Your task to perform on an android device: Add "logitech g pro" to the cart on ebay.com, then select checkout. Image 0: 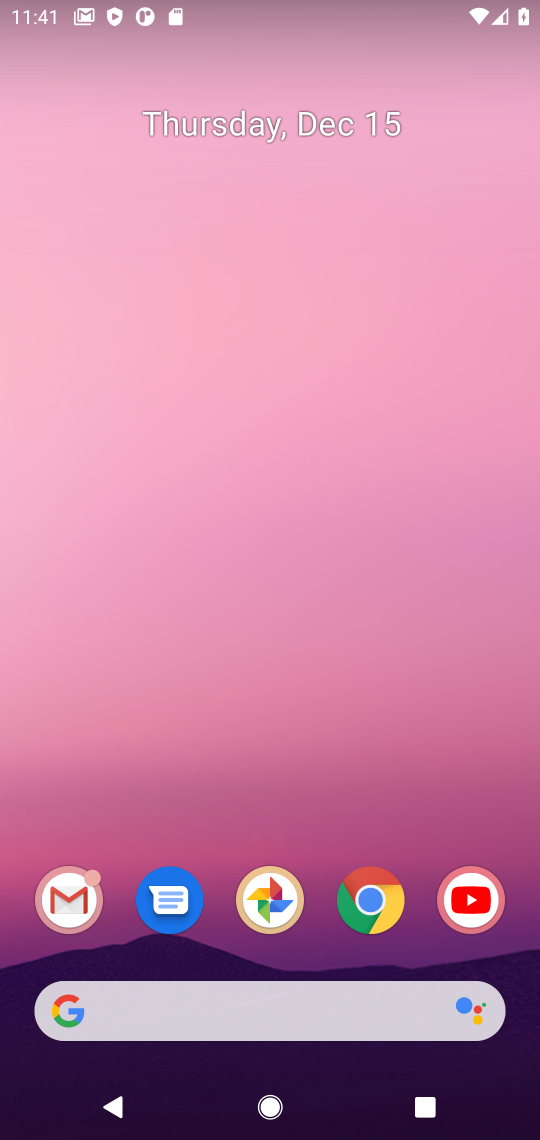
Step 0: click (373, 899)
Your task to perform on an android device: Add "logitech g pro" to the cart on ebay.com, then select checkout. Image 1: 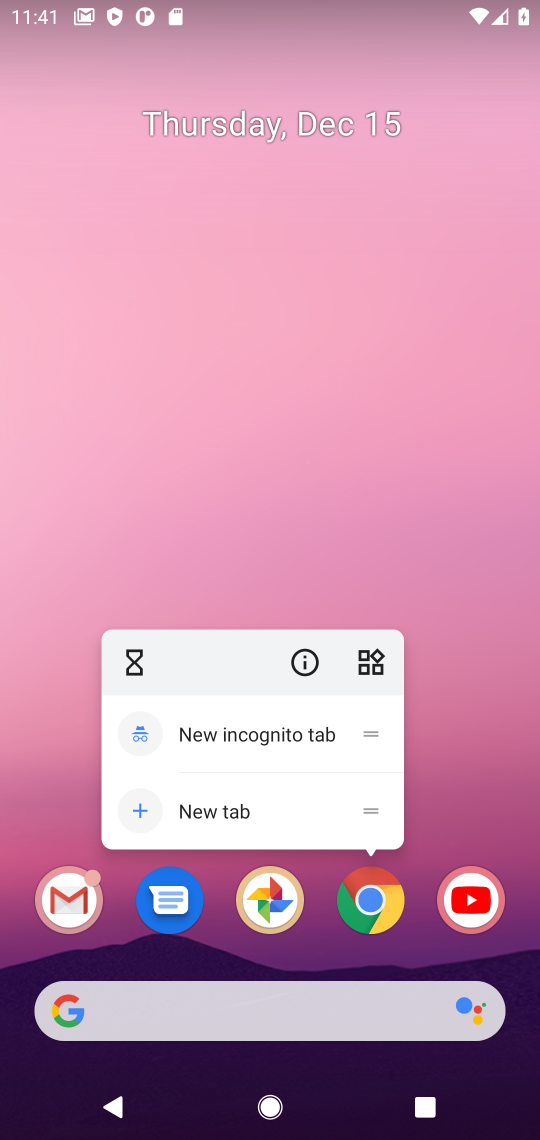
Step 1: click (373, 899)
Your task to perform on an android device: Add "logitech g pro" to the cart on ebay.com, then select checkout. Image 2: 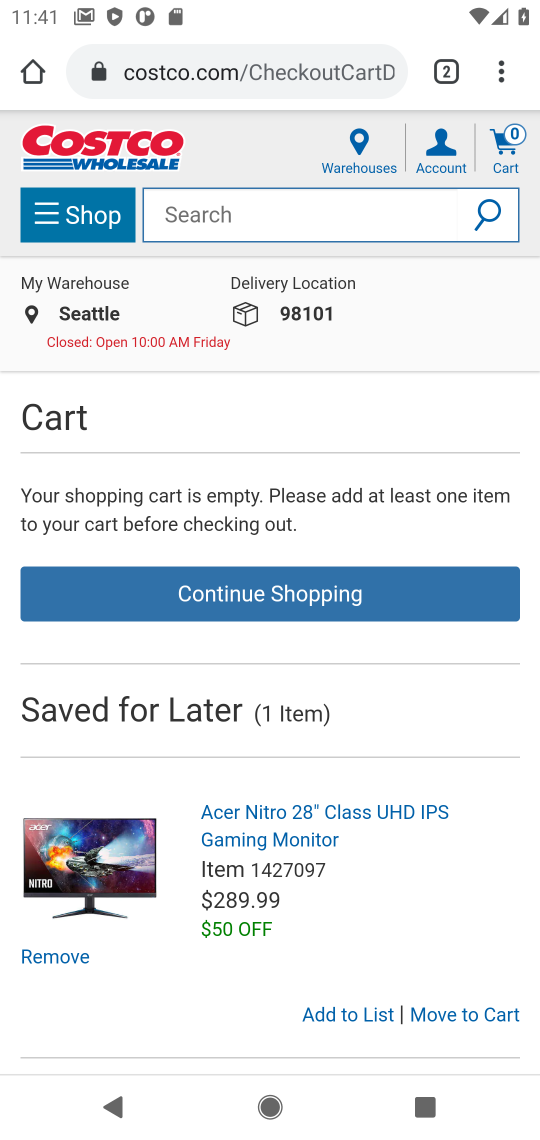
Step 2: click (302, 76)
Your task to perform on an android device: Add "logitech g pro" to the cart on ebay.com, then select checkout. Image 3: 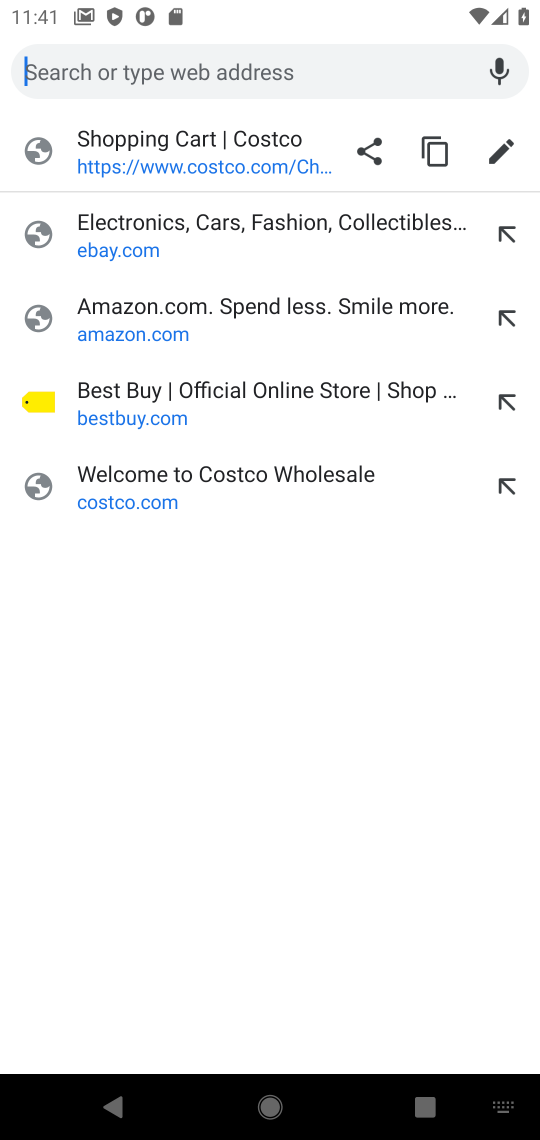
Step 3: click (208, 220)
Your task to perform on an android device: Add "logitech g pro" to the cart on ebay.com, then select checkout. Image 4: 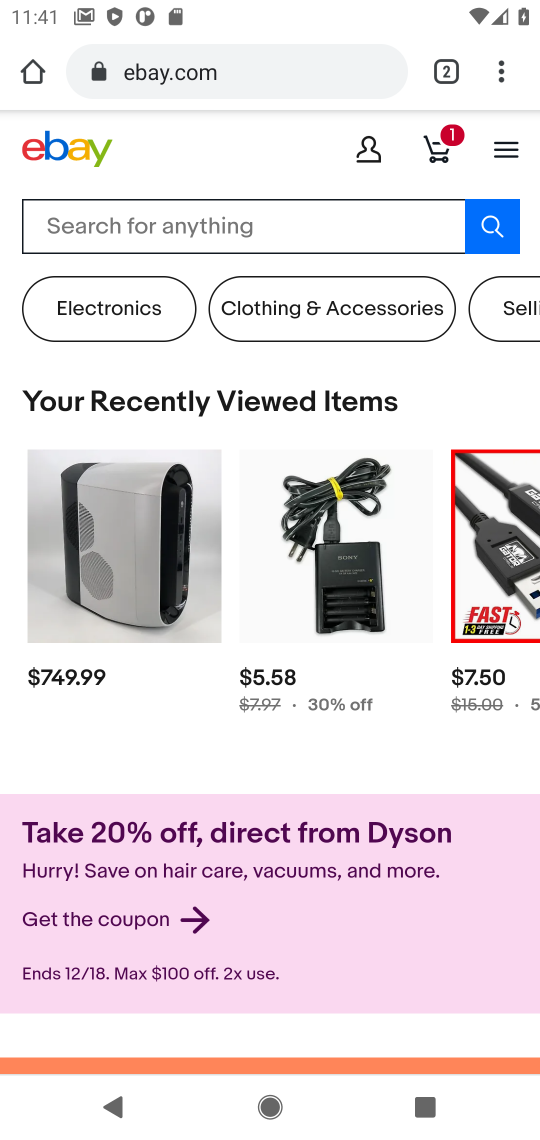
Step 4: click (338, 221)
Your task to perform on an android device: Add "logitech g pro" to the cart on ebay.com, then select checkout. Image 5: 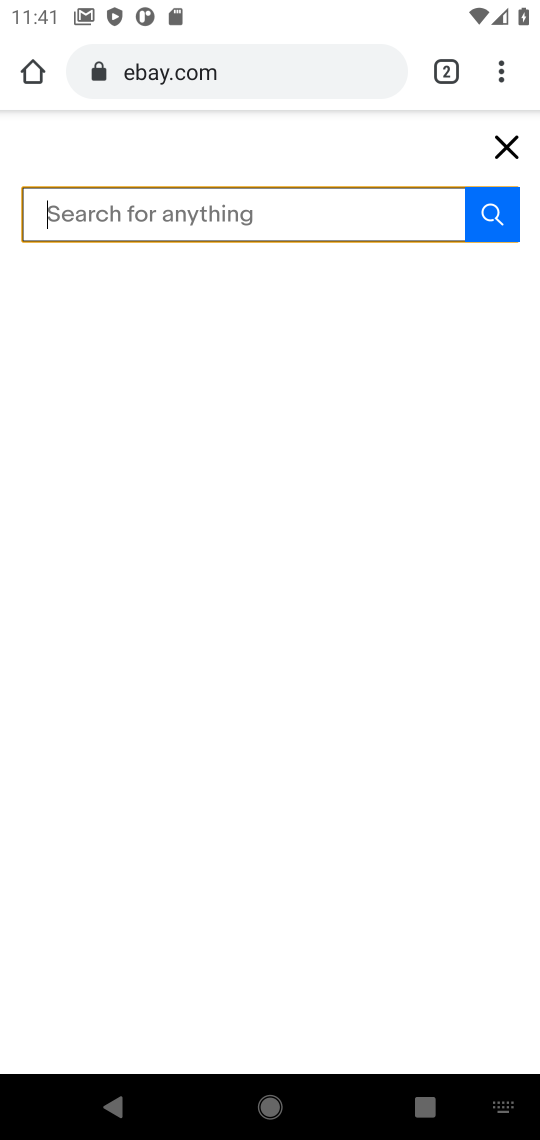
Step 5: type "logitech g pro"
Your task to perform on an android device: Add "logitech g pro" to the cart on ebay.com, then select checkout. Image 6: 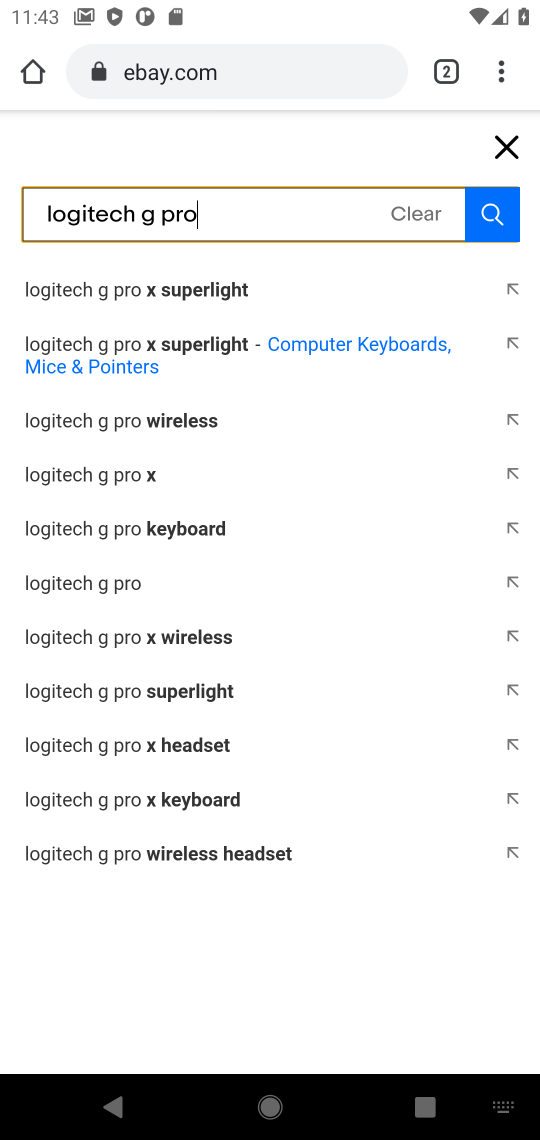
Step 6: click (117, 590)
Your task to perform on an android device: Add "logitech g pro" to the cart on ebay.com, then select checkout. Image 7: 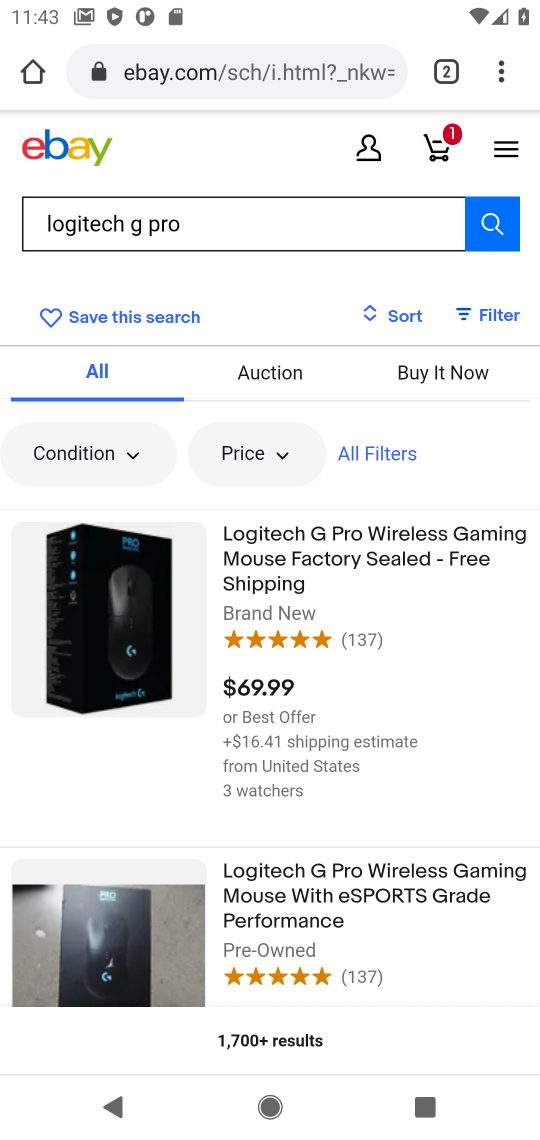
Step 7: click (124, 587)
Your task to perform on an android device: Add "logitech g pro" to the cart on ebay.com, then select checkout. Image 8: 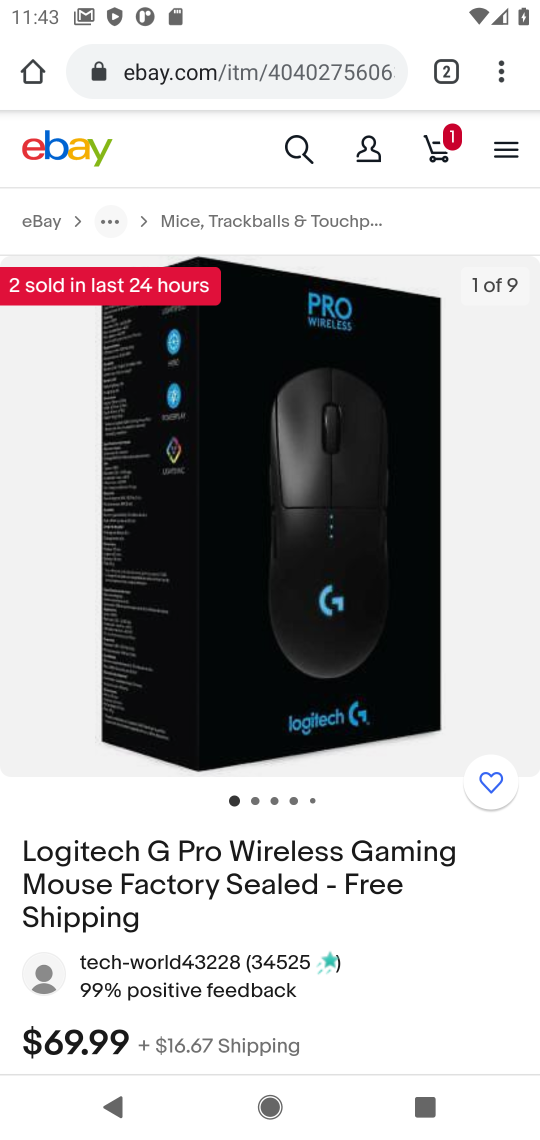
Step 8: drag from (341, 888) to (397, 245)
Your task to perform on an android device: Add "logitech g pro" to the cart on ebay.com, then select checkout. Image 9: 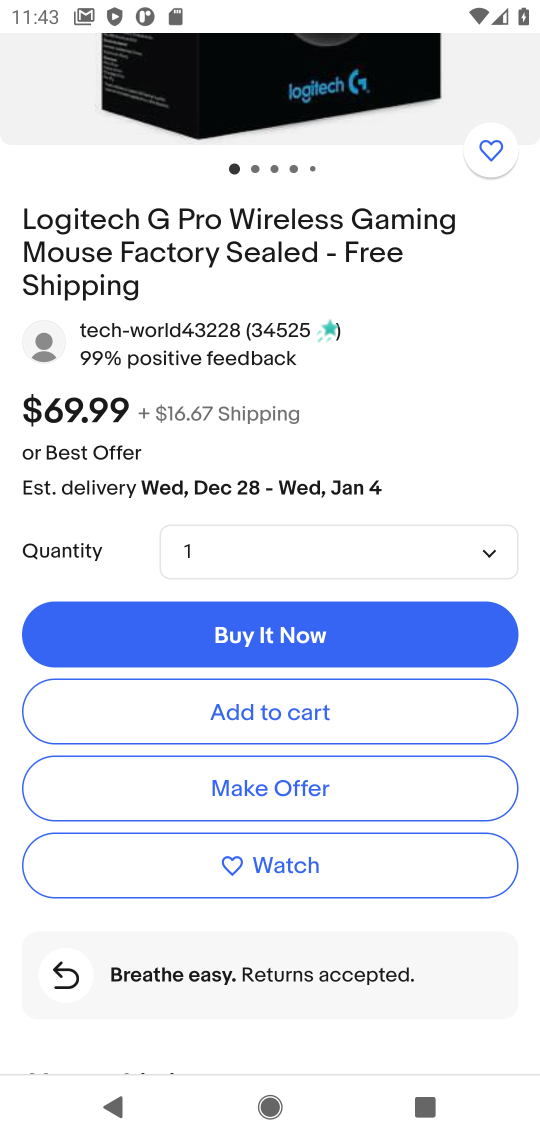
Step 9: click (353, 712)
Your task to perform on an android device: Add "logitech g pro" to the cart on ebay.com, then select checkout. Image 10: 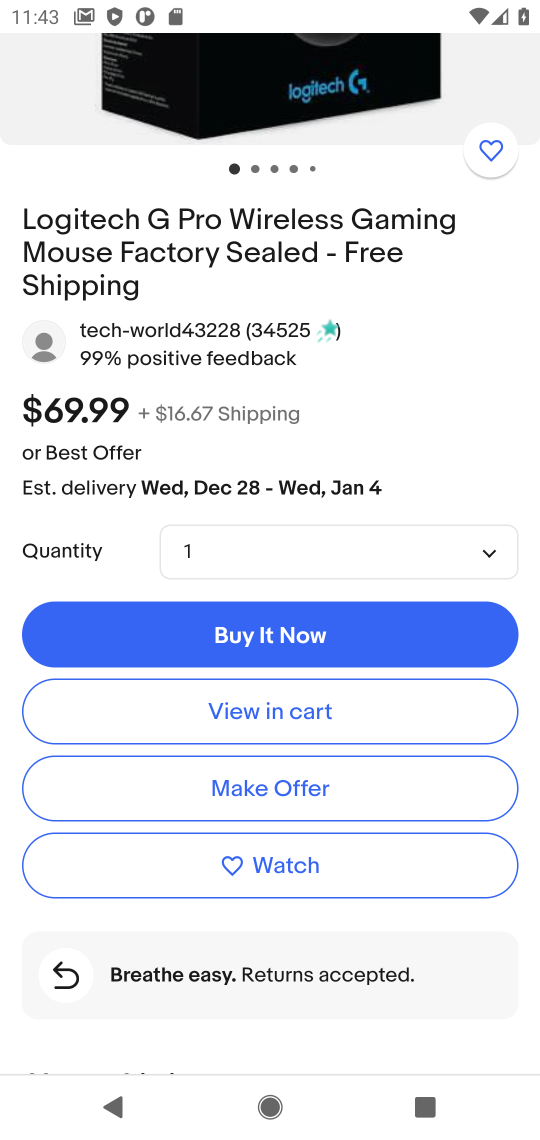
Step 10: click (249, 705)
Your task to perform on an android device: Add "logitech g pro" to the cart on ebay.com, then select checkout. Image 11: 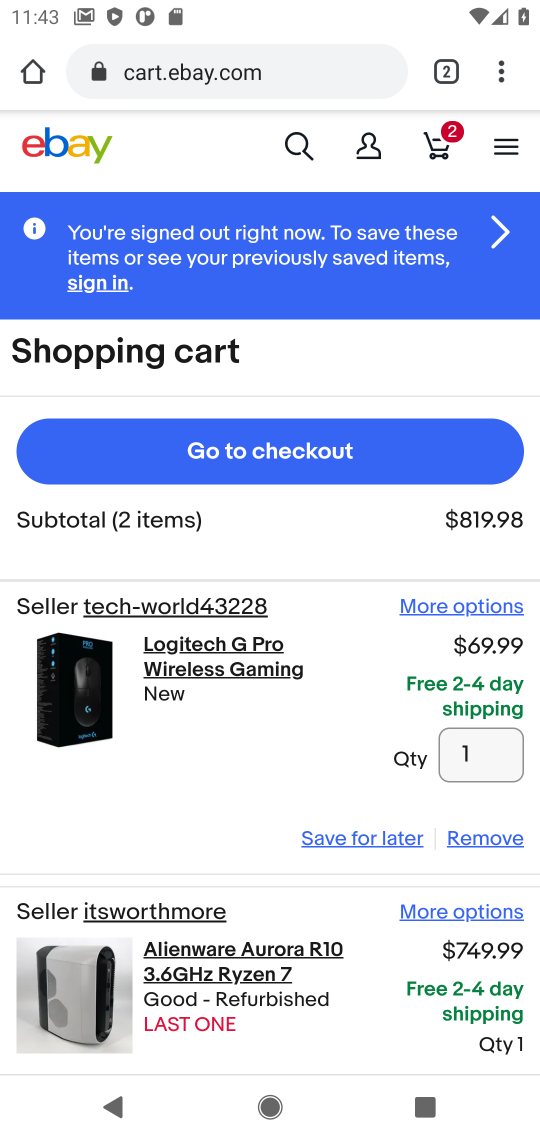
Step 11: click (387, 444)
Your task to perform on an android device: Add "logitech g pro" to the cart on ebay.com, then select checkout. Image 12: 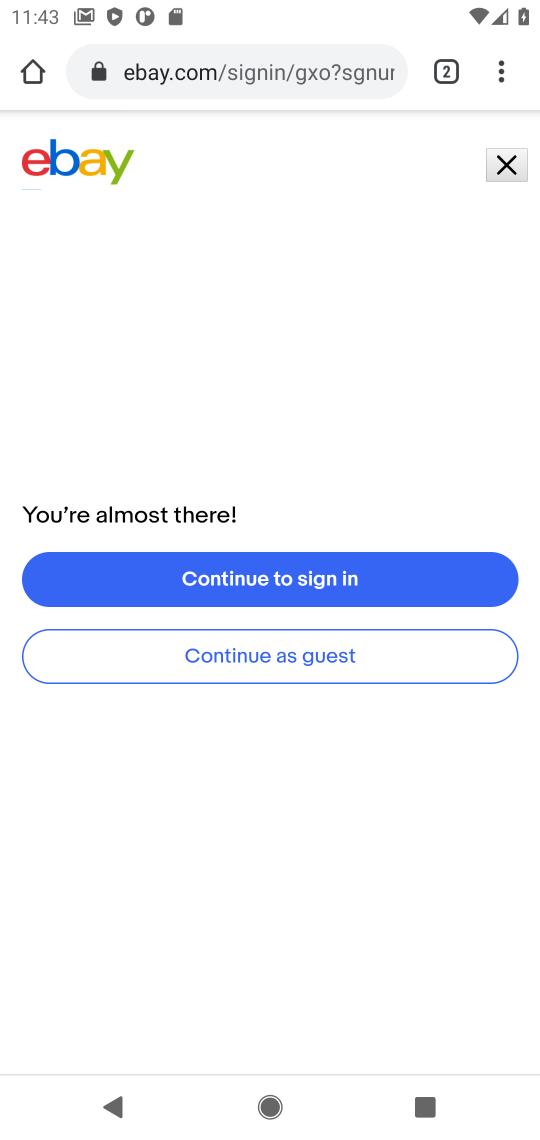
Step 12: task complete